Your task to perform on an android device: turn off picture-in-picture Image 0: 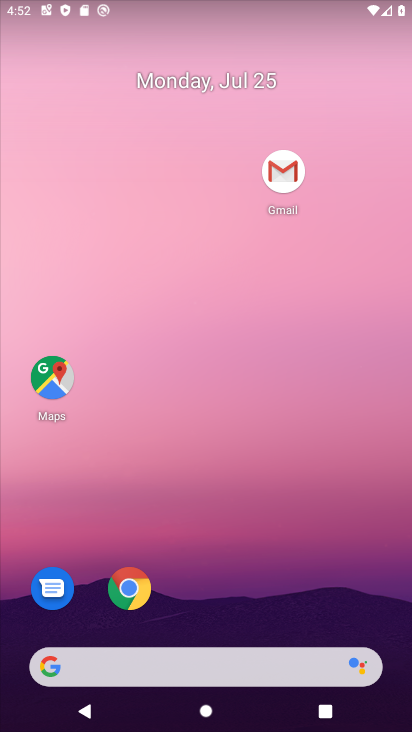
Step 0: click (141, 594)
Your task to perform on an android device: turn off picture-in-picture Image 1: 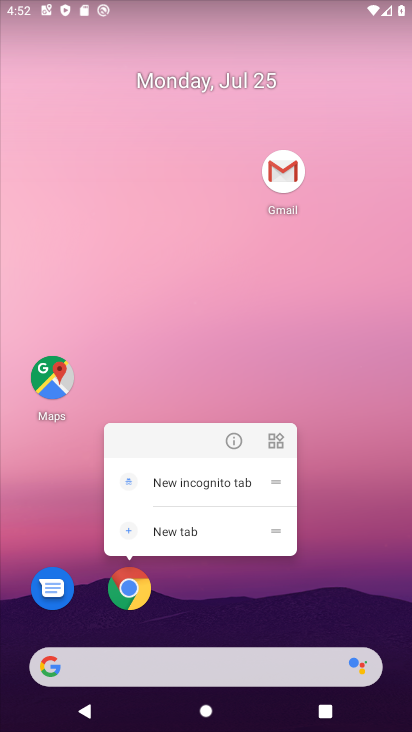
Step 1: click (234, 448)
Your task to perform on an android device: turn off picture-in-picture Image 2: 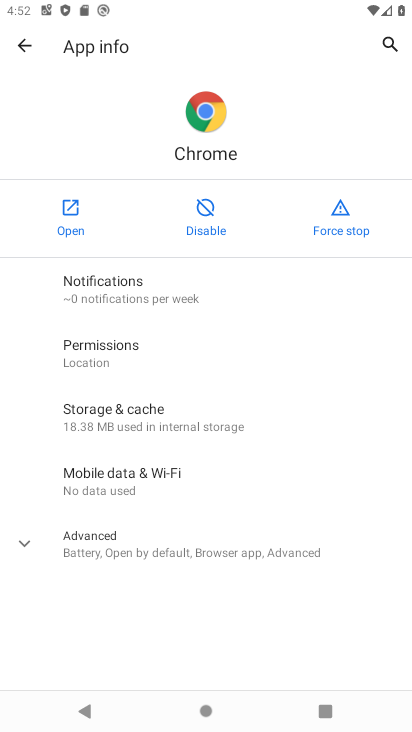
Step 2: click (141, 553)
Your task to perform on an android device: turn off picture-in-picture Image 3: 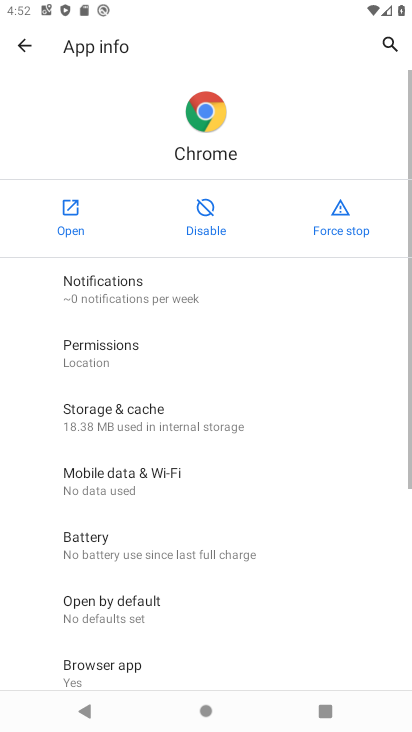
Step 3: drag from (311, 650) to (339, 96)
Your task to perform on an android device: turn off picture-in-picture Image 4: 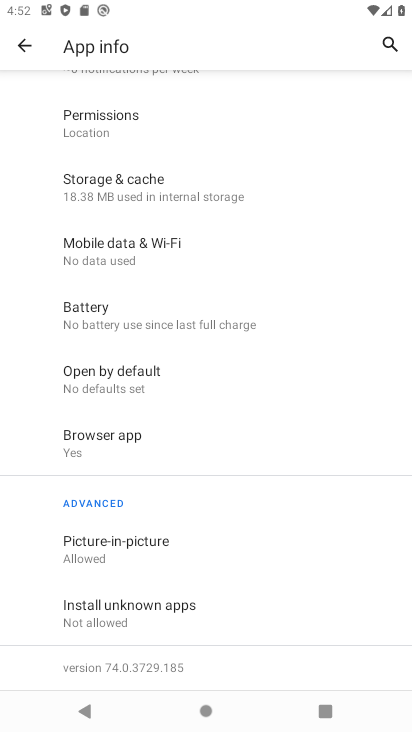
Step 4: click (122, 536)
Your task to perform on an android device: turn off picture-in-picture Image 5: 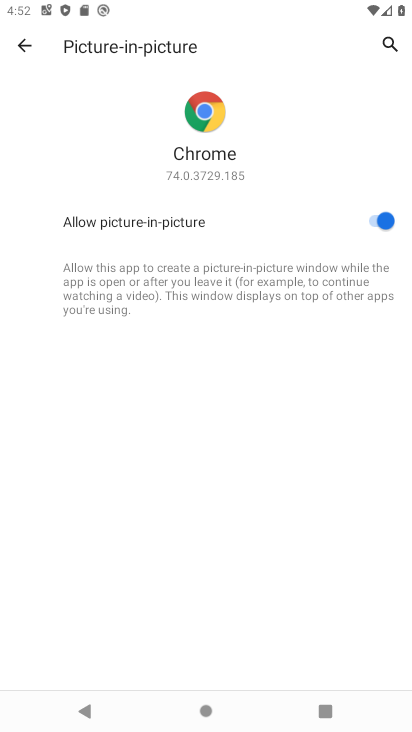
Step 5: click (375, 225)
Your task to perform on an android device: turn off picture-in-picture Image 6: 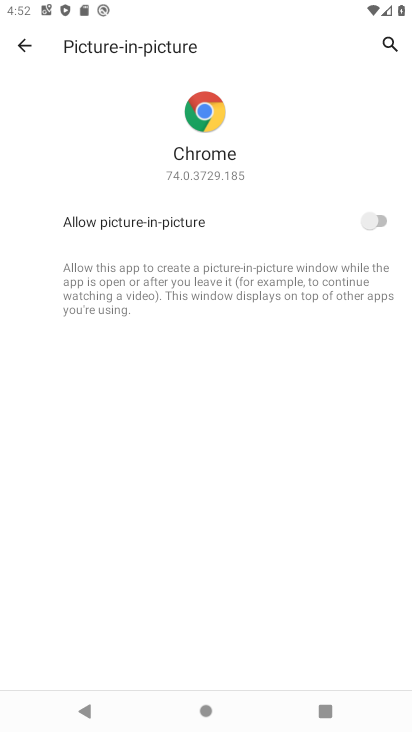
Step 6: task complete